Your task to perform on an android device: add a contact Image 0: 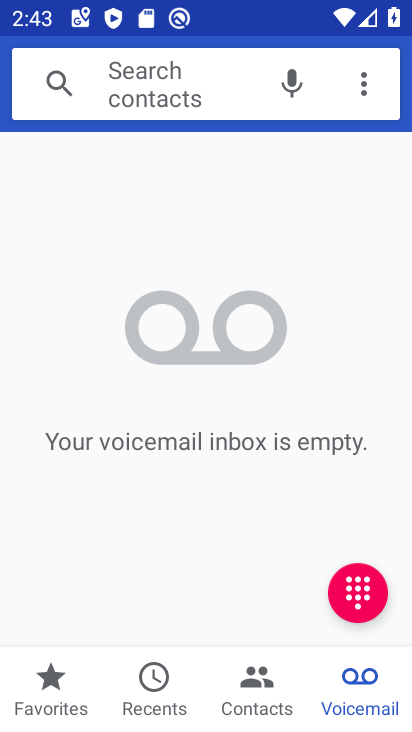
Step 0: press home button
Your task to perform on an android device: add a contact Image 1: 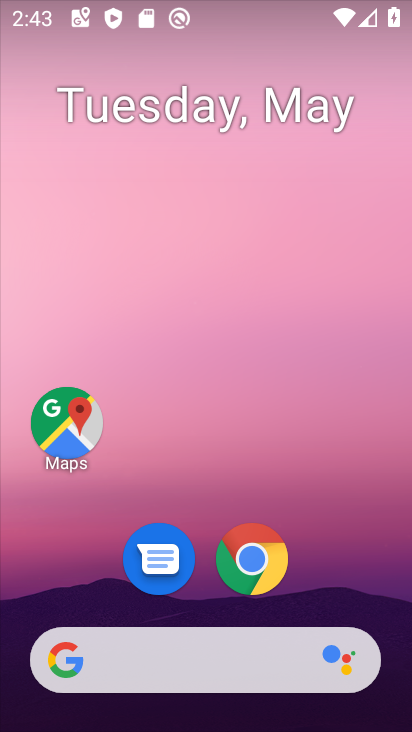
Step 1: drag from (256, 341) to (276, 121)
Your task to perform on an android device: add a contact Image 2: 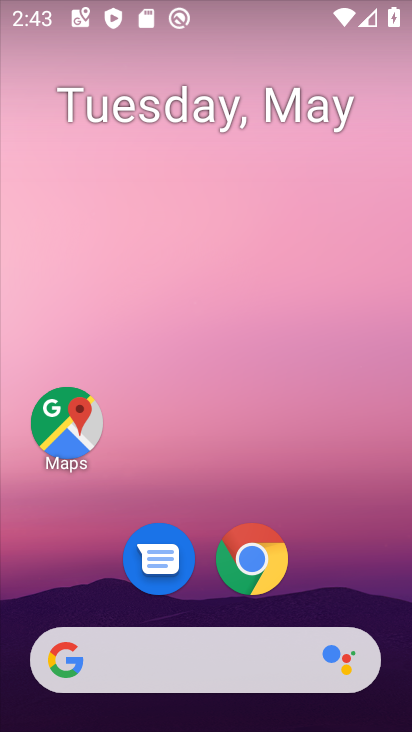
Step 2: drag from (200, 653) to (330, 156)
Your task to perform on an android device: add a contact Image 3: 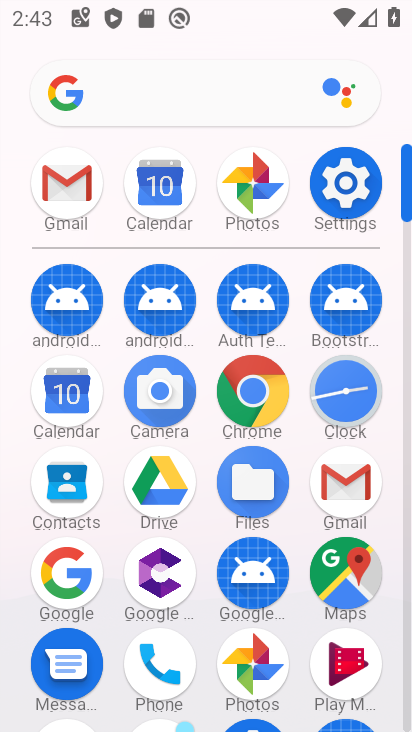
Step 3: click (56, 484)
Your task to perform on an android device: add a contact Image 4: 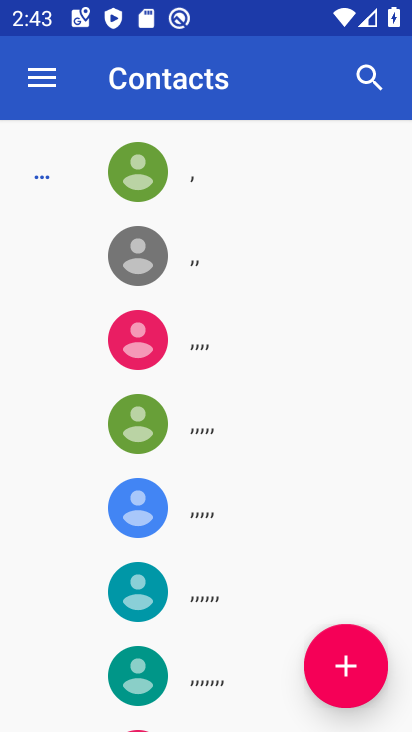
Step 4: click (347, 678)
Your task to perform on an android device: add a contact Image 5: 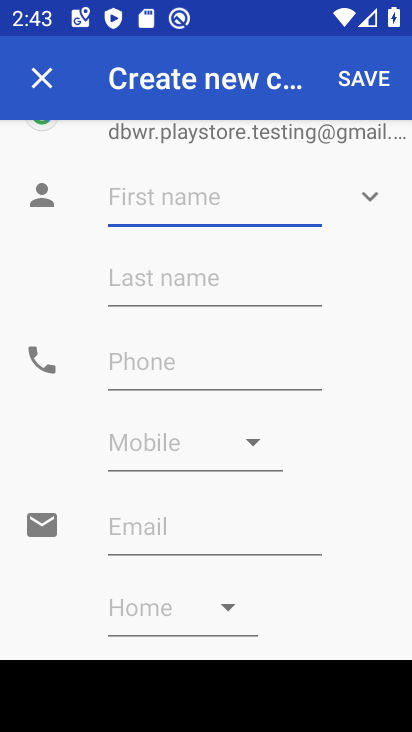
Step 5: type "nxmdjfh"
Your task to perform on an android device: add a contact Image 6: 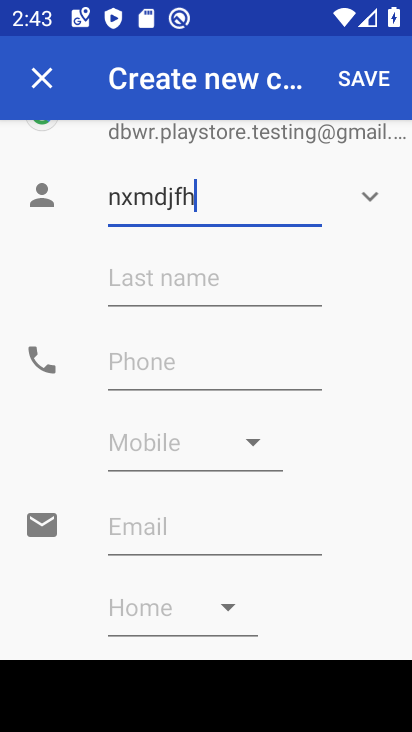
Step 6: click (128, 363)
Your task to perform on an android device: add a contact Image 7: 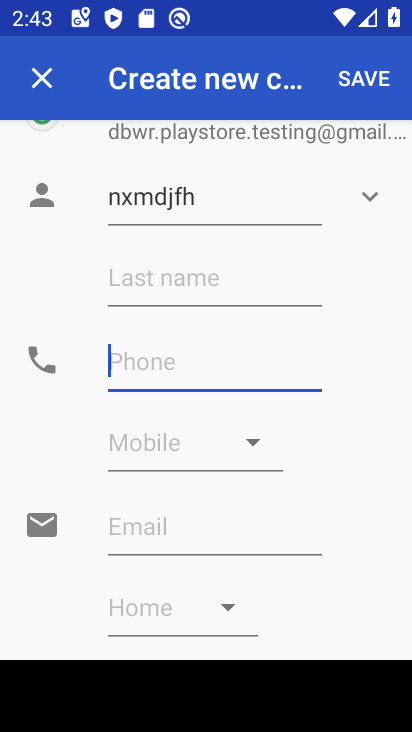
Step 7: type "83465"
Your task to perform on an android device: add a contact Image 8: 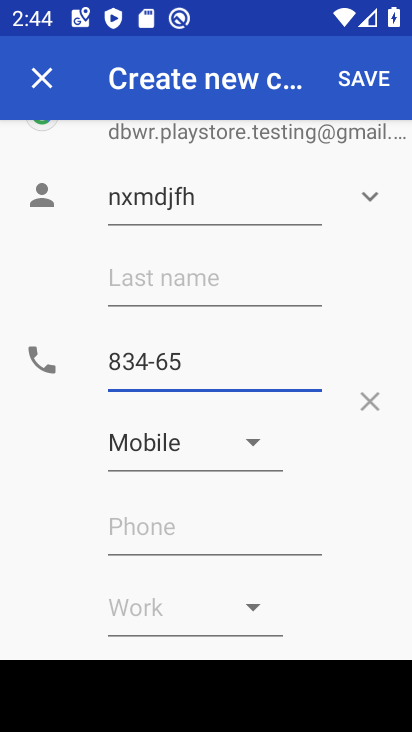
Step 8: click (349, 83)
Your task to perform on an android device: add a contact Image 9: 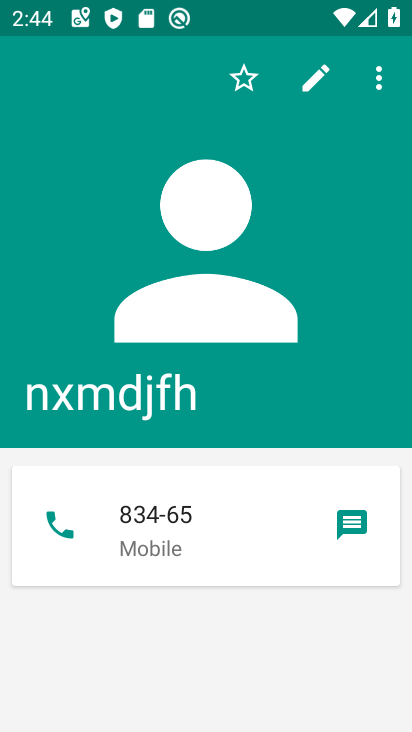
Step 9: task complete